Your task to perform on an android device: open chrome privacy settings Image 0: 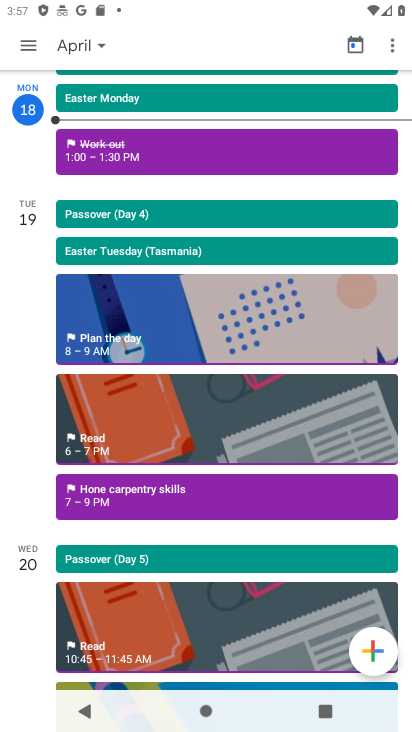
Step 0: press home button
Your task to perform on an android device: open chrome privacy settings Image 1: 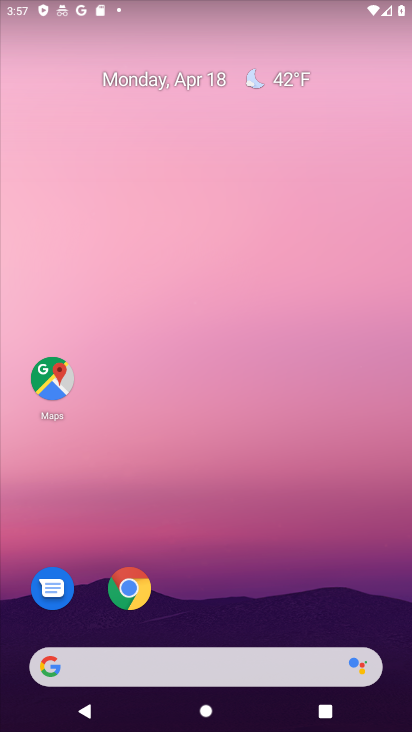
Step 1: click (137, 586)
Your task to perform on an android device: open chrome privacy settings Image 2: 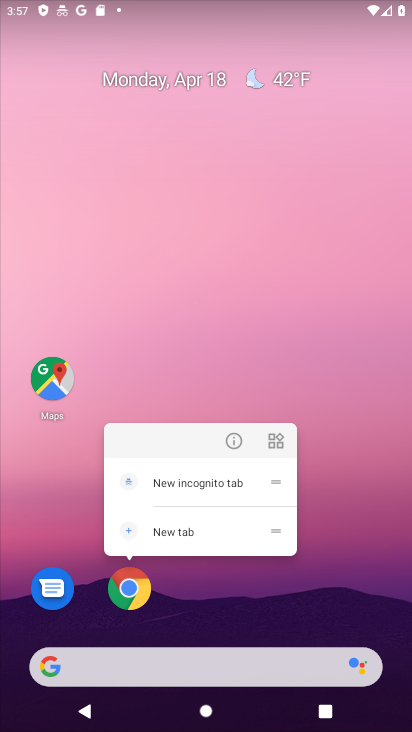
Step 2: click (141, 587)
Your task to perform on an android device: open chrome privacy settings Image 3: 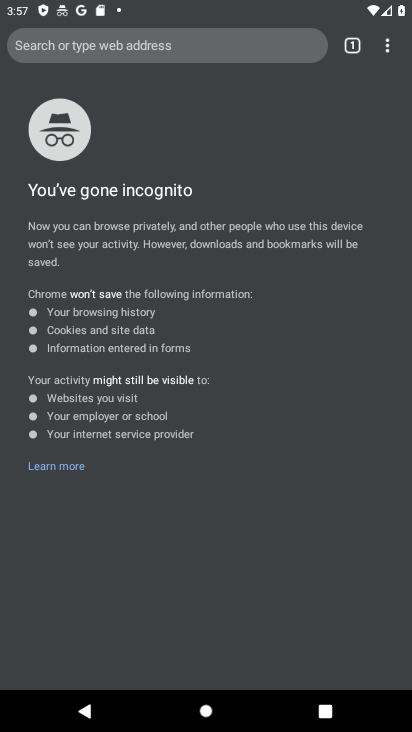
Step 3: drag from (388, 37) to (243, 343)
Your task to perform on an android device: open chrome privacy settings Image 4: 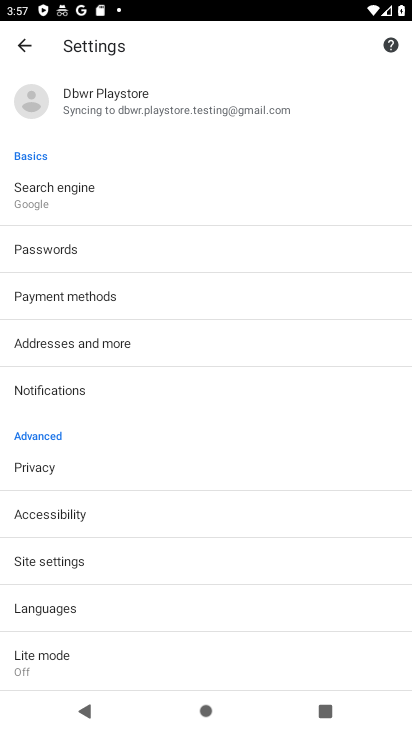
Step 4: drag from (115, 610) to (139, 485)
Your task to perform on an android device: open chrome privacy settings Image 5: 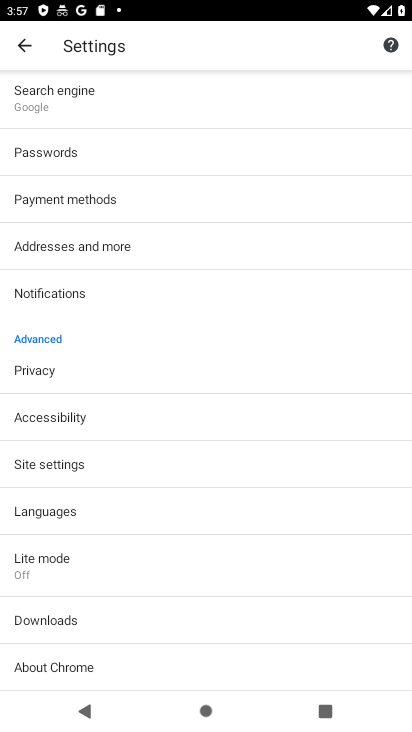
Step 5: click (76, 369)
Your task to perform on an android device: open chrome privacy settings Image 6: 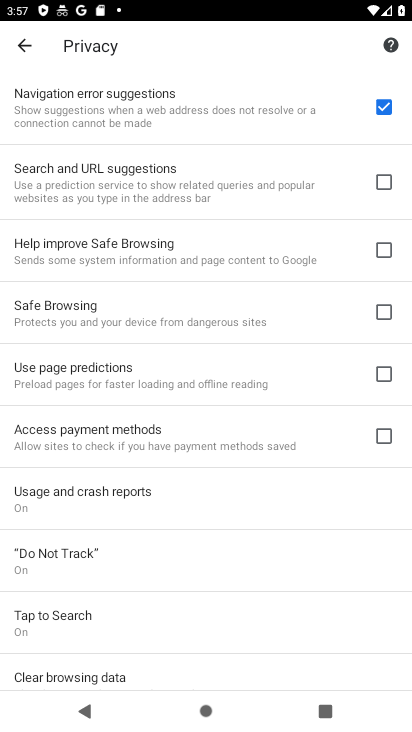
Step 6: task complete